Your task to perform on an android device: Open Google Chrome Image 0: 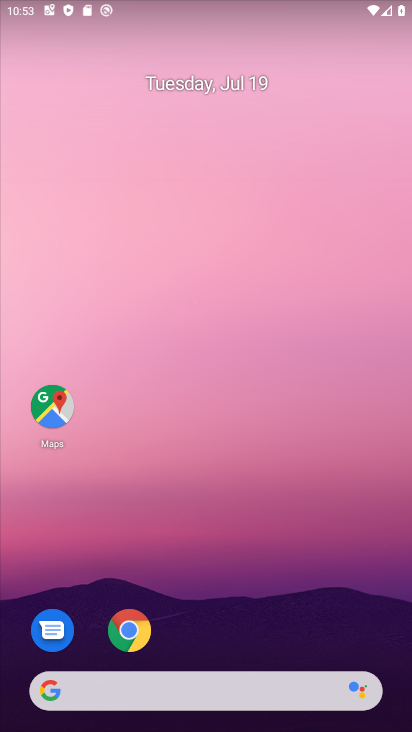
Step 0: click (136, 638)
Your task to perform on an android device: Open Google Chrome Image 1: 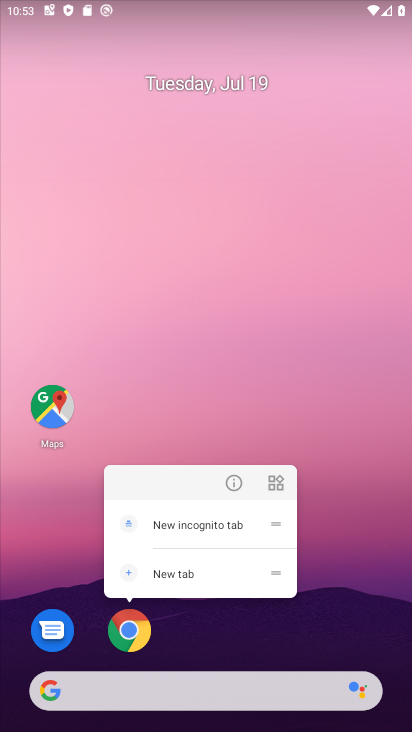
Step 1: click (141, 645)
Your task to perform on an android device: Open Google Chrome Image 2: 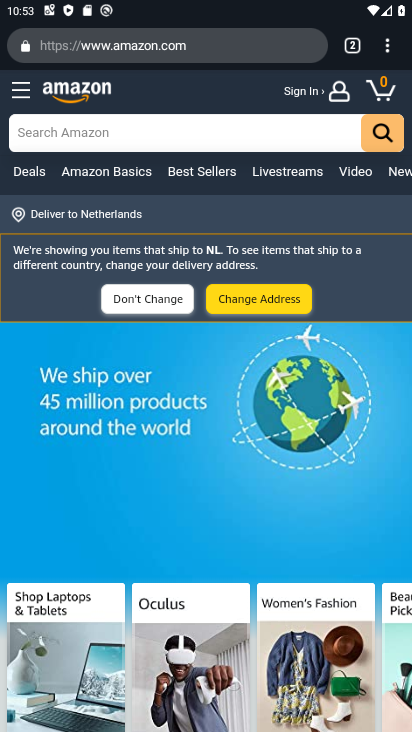
Step 2: task complete